Your task to perform on an android device: Open Chrome and go to settings Image 0: 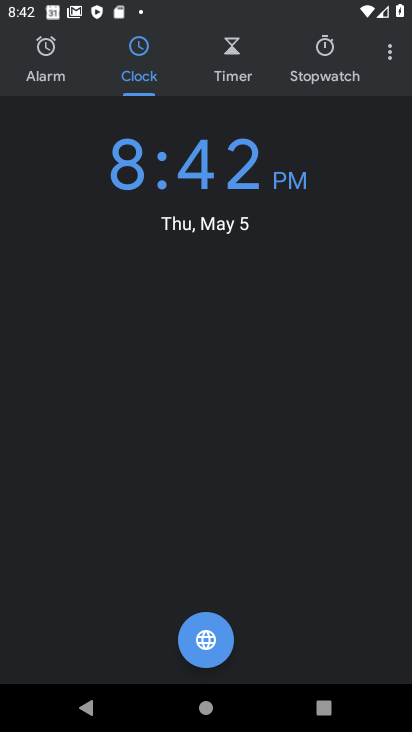
Step 0: press home button
Your task to perform on an android device: Open Chrome and go to settings Image 1: 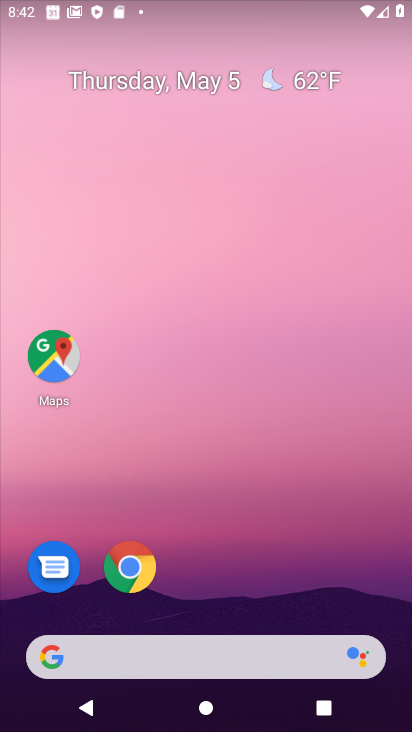
Step 1: click (131, 564)
Your task to perform on an android device: Open Chrome and go to settings Image 2: 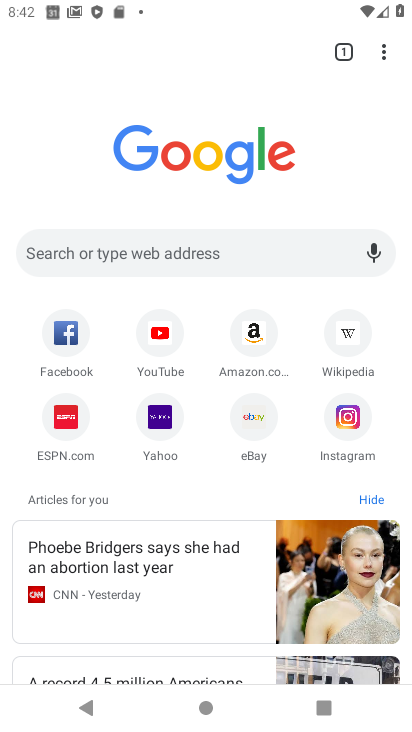
Step 2: task complete